Your task to perform on an android device: see sites visited before in the chrome app Image 0: 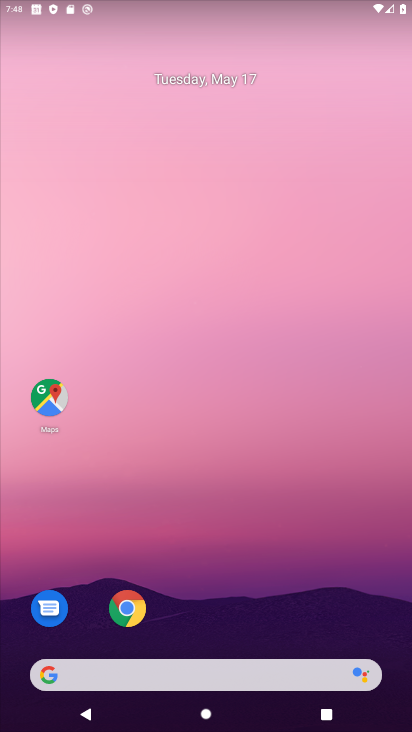
Step 0: drag from (313, 588) to (290, 248)
Your task to perform on an android device: see sites visited before in the chrome app Image 1: 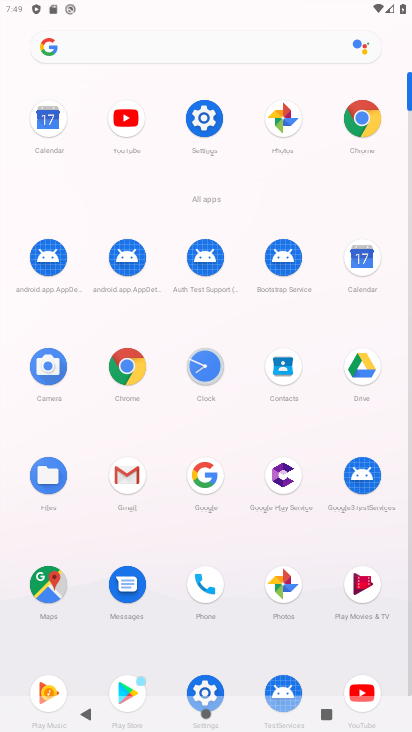
Step 1: click (124, 367)
Your task to perform on an android device: see sites visited before in the chrome app Image 2: 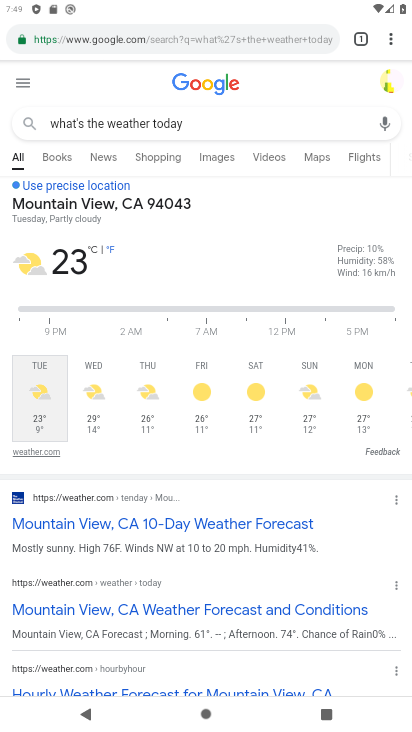
Step 2: task complete